Your task to perform on an android device: What's the weather today? Image 0: 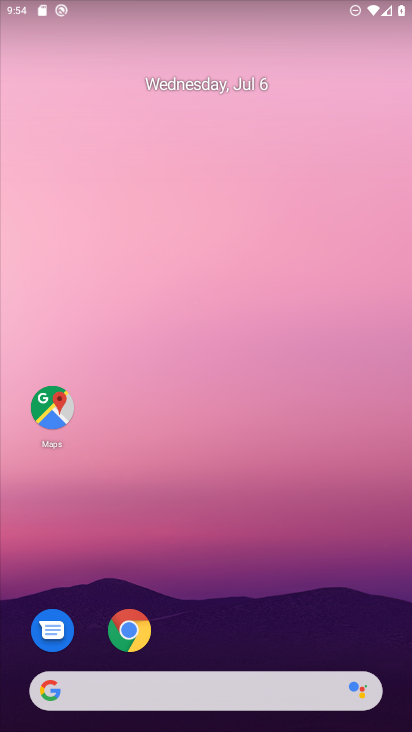
Step 0: press home button
Your task to perform on an android device: What's the weather today? Image 1: 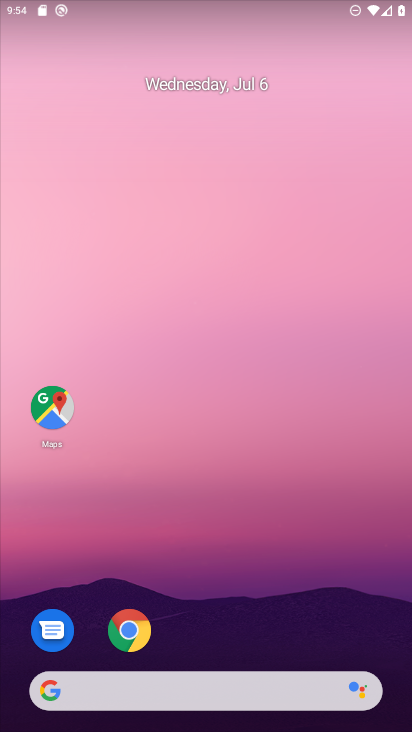
Step 1: click (105, 623)
Your task to perform on an android device: What's the weather today? Image 2: 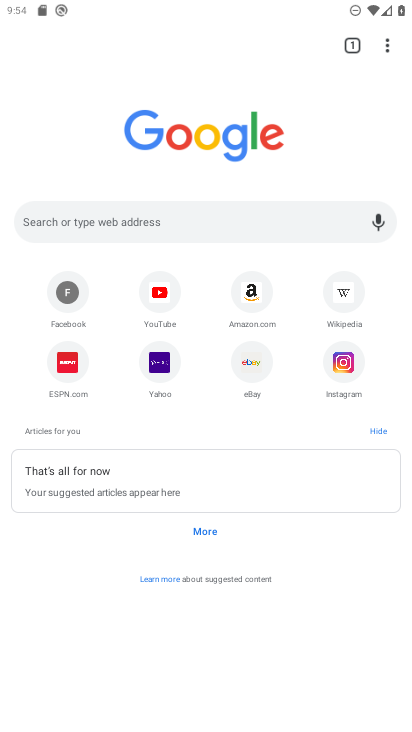
Step 2: click (182, 216)
Your task to perform on an android device: What's the weather today? Image 3: 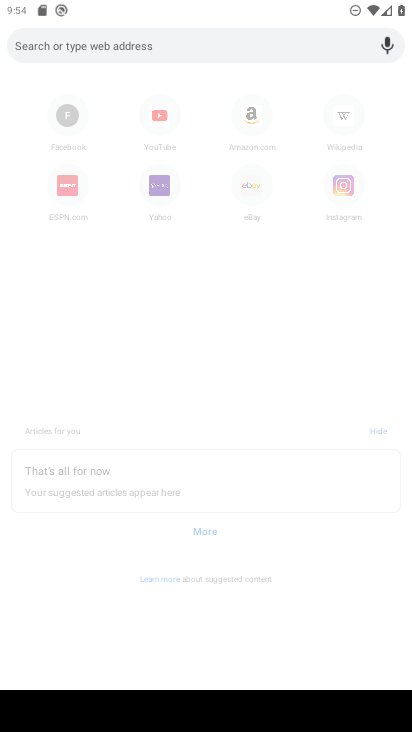
Step 3: type "What's the weather today?"
Your task to perform on an android device: What's the weather today? Image 4: 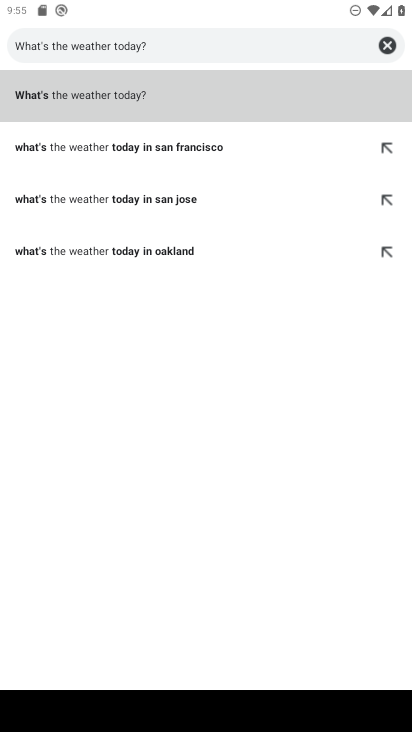
Step 4: click (114, 95)
Your task to perform on an android device: What's the weather today? Image 5: 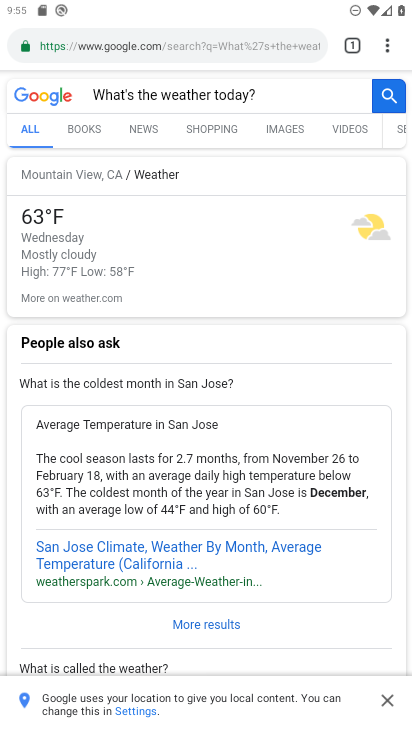
Step 5: task complete